Your task to perform on an android device: Empty the shopping cart on target. Search for logitech g pro on target, select the first entry, and add it to the cart. Image 0: 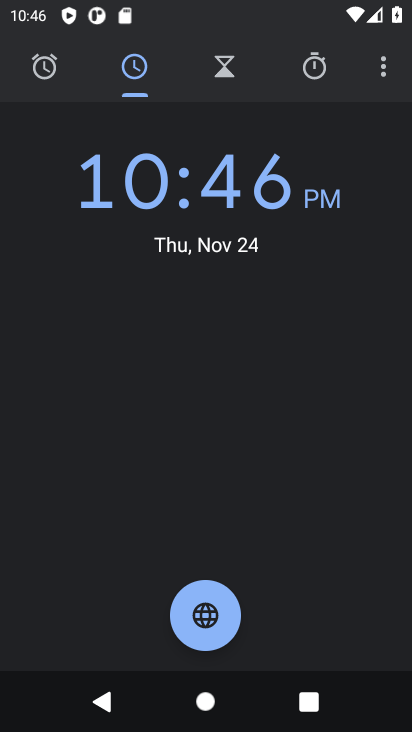
Step 0: press home button
Your task to perform on an android device: Empty the shopping cart on target. Search for logitech g pro on target, select the first entry, and add it to the cart. Image 1: 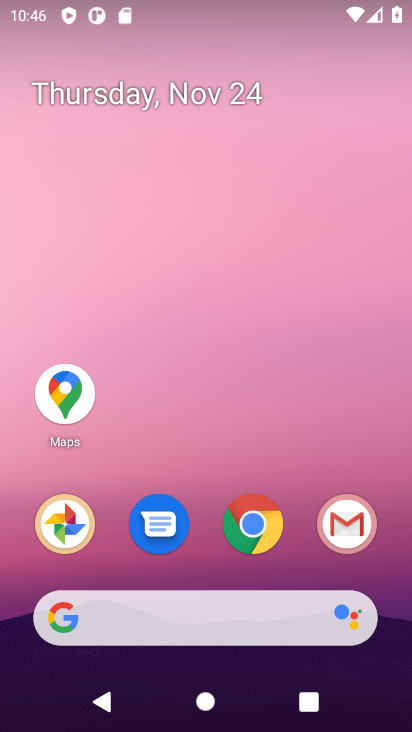
Step 1: click (252, 525)
Your task to perform on an android device: Empty the shopping cart on target. Search for logitech g pro on target, select the first entry, and add it to the cart. Image 2: 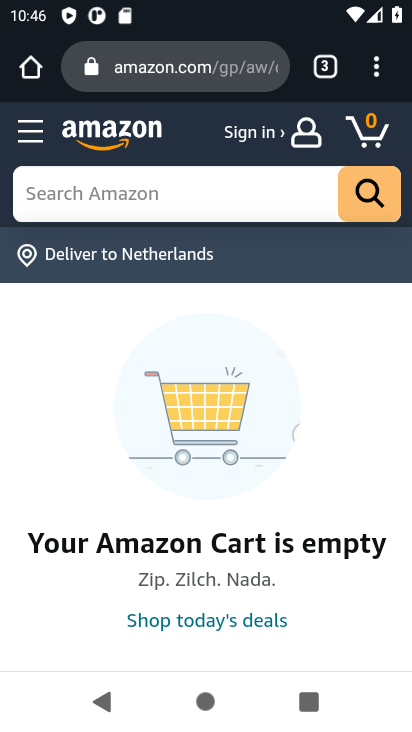
Step 2: click (137, 63)
Your task to perform on an android device: Empty the shopping cart on target. Search for logitech g pro on target, select the first entry, and add it to the cart. Image 3: 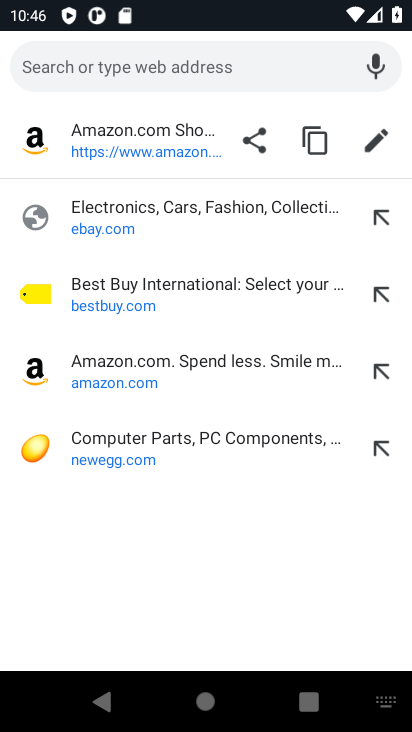
Step 3: type "target.com"
Your task to perform on an android device: Empty the shopping cart on target. Search for logitech g pro on target, select the first entry, and add it to the cart. Image 4: 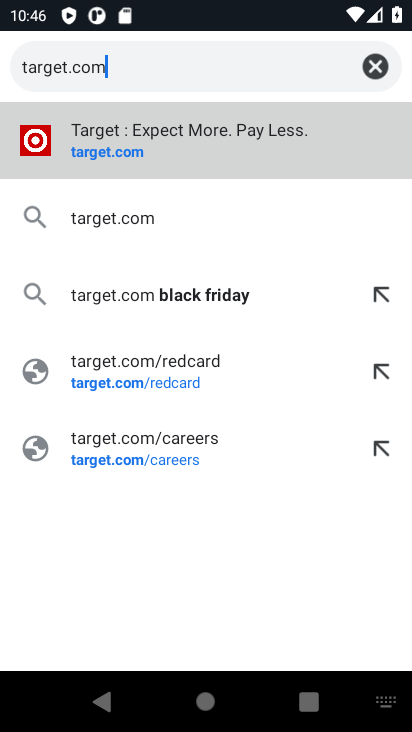
Step 4: click (102, 160)
Your task to perform on an android device: Empty the shopping cart on target. Search for logitech g pro on target, select the first entry, and add it to the cart. Image 5: 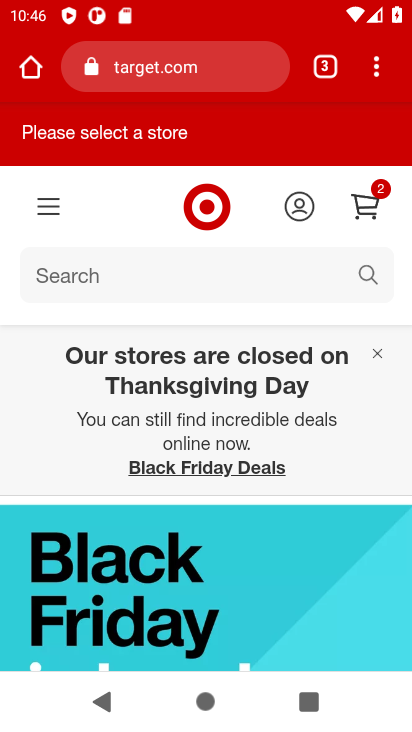
Step 5: click (361, 209)
Your task to perform on an android device: Empty the shopping cart on target. Search for logitech g pro on target, select the first entry, and add it to the cart. Image 6: 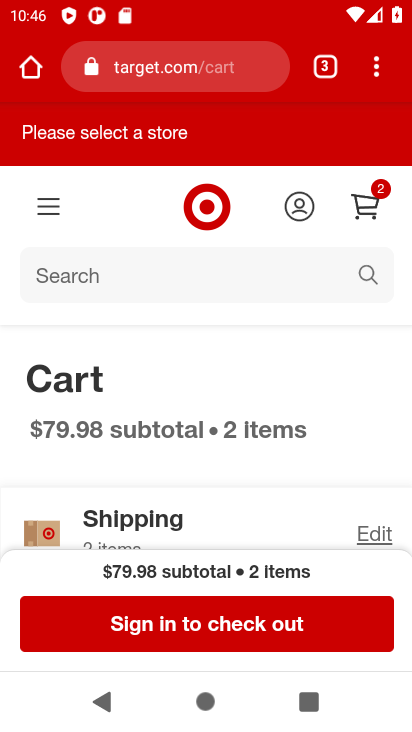
Step 6: drag from (188, 473) to (158, 172)
Your task to perform on an android device: Empty the shopping cart on target. Search for logitech g pro on target, select the first entry, and add it to the cart. Image 7: 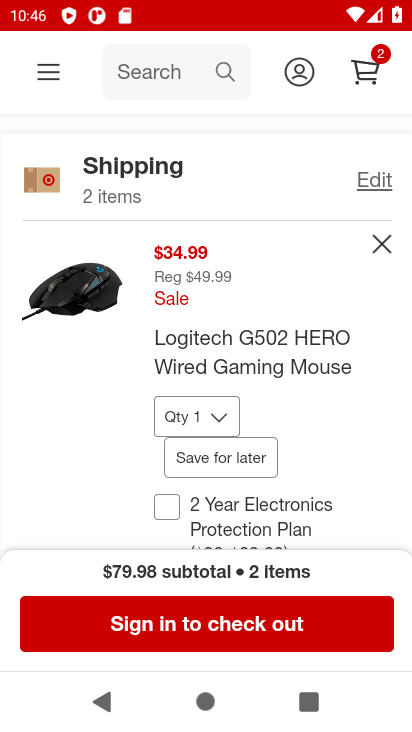
Step 7: click (388, 245)
Your task to perform on an android device: Empty the shopping cart on target. Search for logitech g pro on target, select the first entry, and add it to the cart. Image 8: 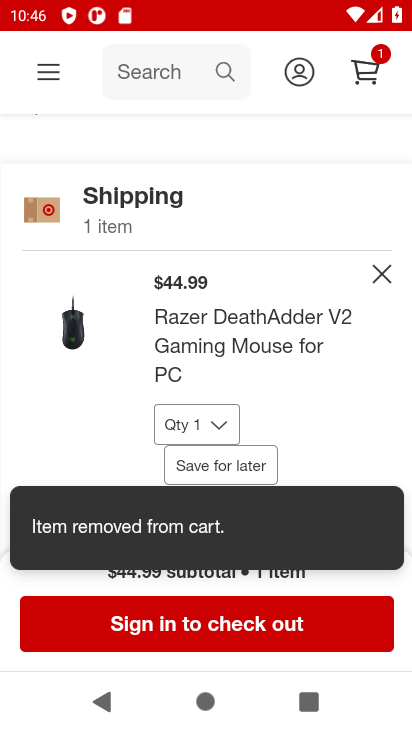
Step 8: click (377, 276)
Your task to perform on an android device: Empty the shopping cart on target. Search for logitech g pro on target, select the first entry, and add it to the cart. Image 9: 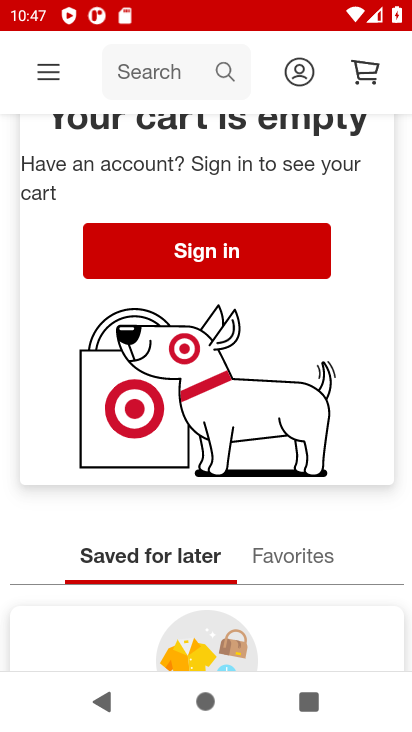
Step 9: drag from (340, 267) to (358, 424)
Your task to perform on an android device: Empty the shopping cart on target. Search for logitech g pro on target, select the first entry, and add it to the cart. Image 10: 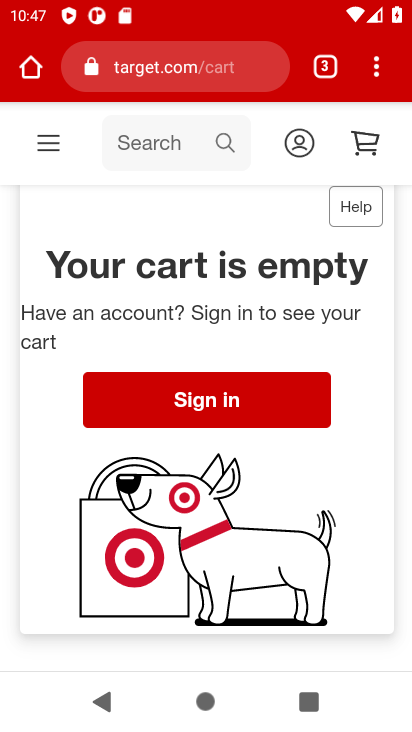
Step 10: drag from (220, 234) to (215, 331)
Your task to perform on an android device: Empty the shopping cart on target. Search for logitech g pro on target, select the first entry, and add it to the cart. Image 11: 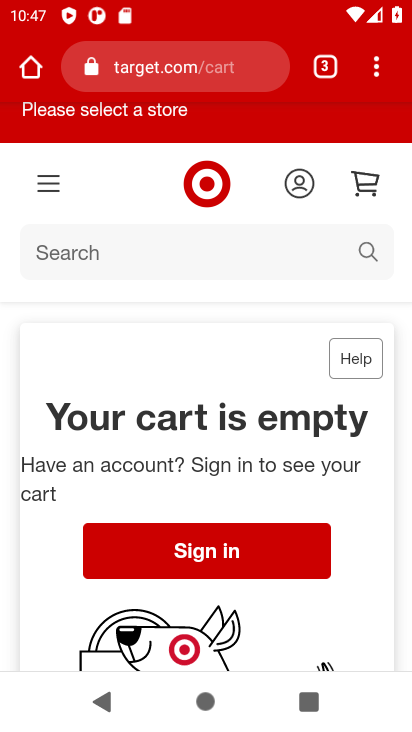
Step 11: click (360, 253)
Your task to perform on an android device: Empty the shopping cart on target. Search for logitech g pro on target, select the first entry, and add it to the cart. Image 12: 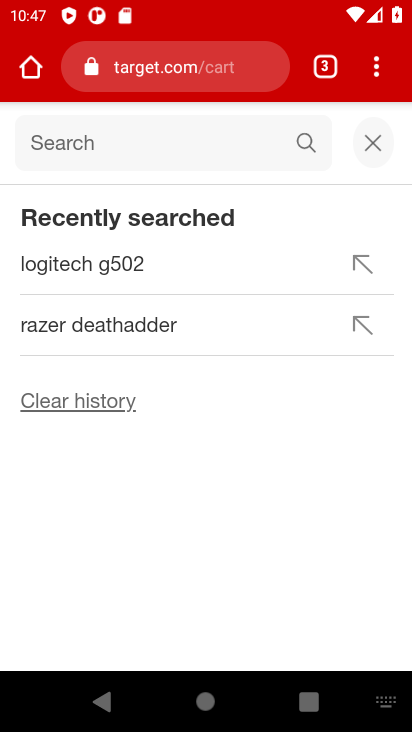
Step 12: type " logitech g pro"
Your task to perform on an android device: Empty the shopping cart on target. Search for logitech g pro on target, select the first entry, and add it to the cart. Image 13: 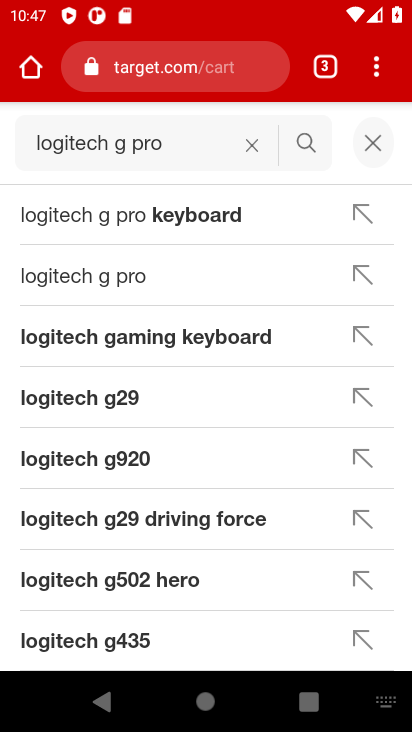
Step 13: click (83, 286)
Your task to perform on an android device: Empty the shopping cart on target. Search for logitech g pro on target, select the first entry, and add it to the cart. Image 14: 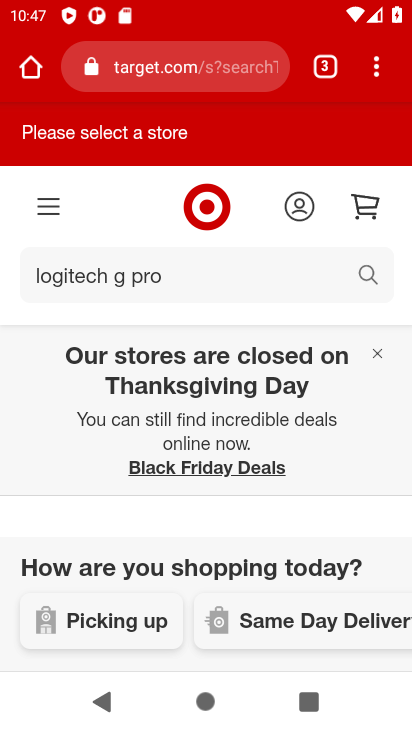
Step 14: task complete